Your task to perform on an android device: change the clock display to show seconds Image 0: 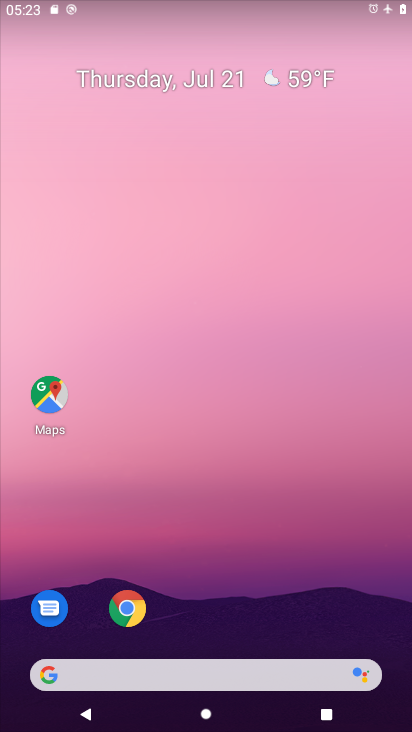
Step 0: drag from (303, 663) to (399, 135)
Your task to perform on an android device: change the clock display to show seconds Image 1: 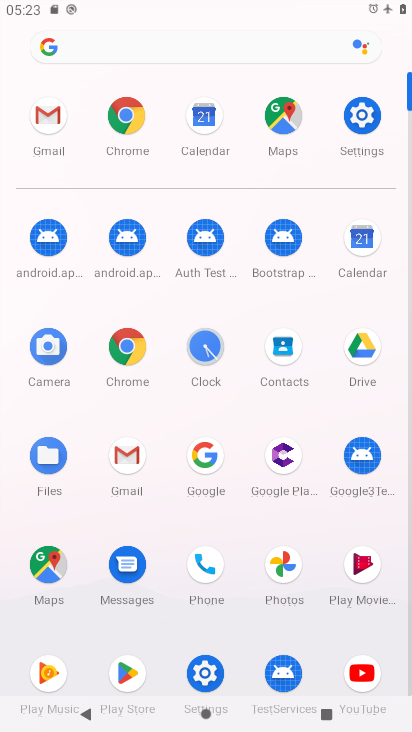
Step 1: click (217, 338)
Your task to perform on an android device: change the clock display to show seconds Image 2: 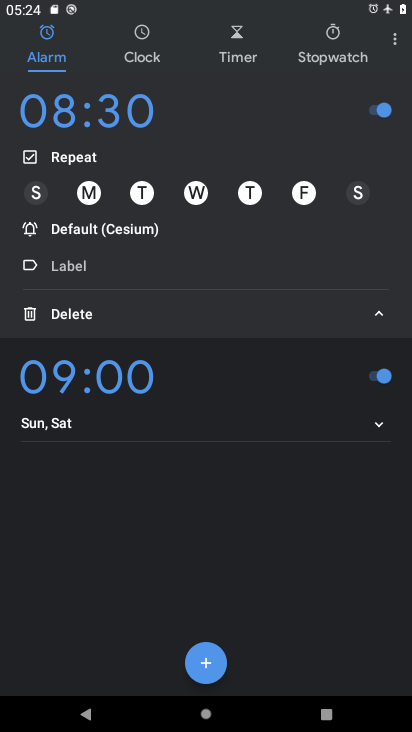
Step 2: click (389, 37)
Your task to perform on an android device: change the clock display to show seconds Image 3: 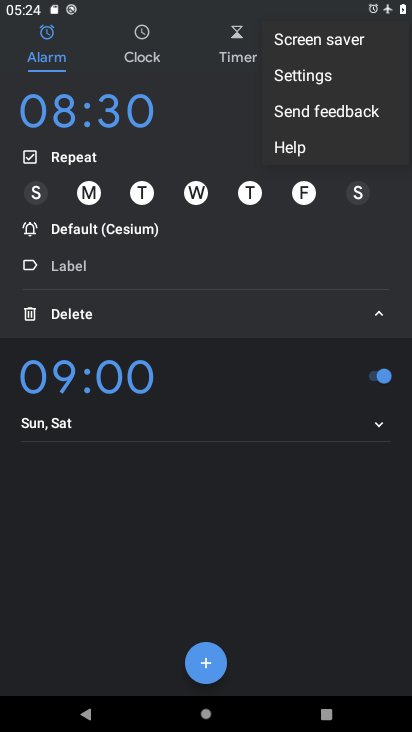
Step 3: click (334, 80)
Your task to perform on an android device: change the clock display to show seconds Image 4: 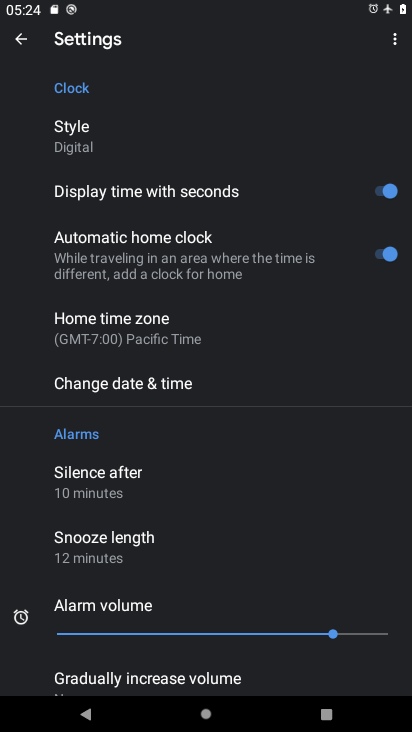
Step 4: task complete